Your task to perform on an android device: change your default location settings in chrome Image 0: 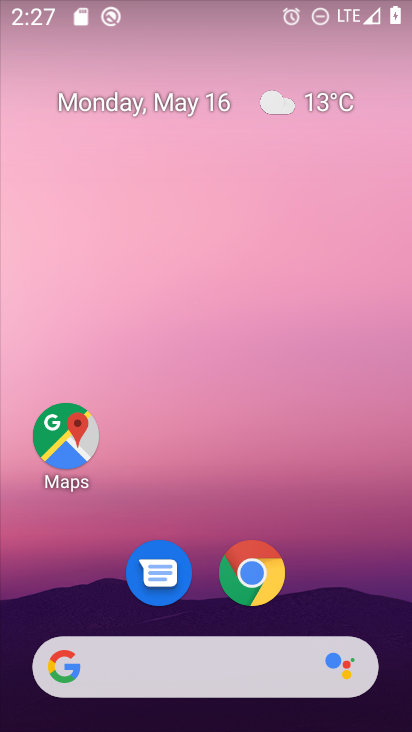
Step 0: click (286, 599)
Your task to perform on an android device: change your default location settings in chrome Image 1: 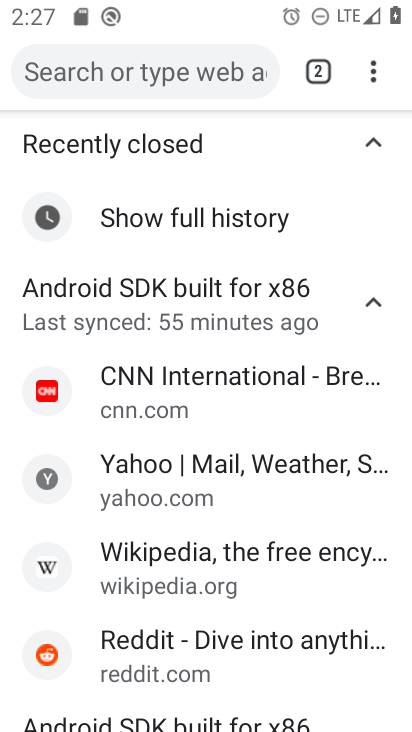
Step 1: drag from (378, 61) to (133, 598)
Your task to perform on an android device: change your default location settings in chrome Image 2: 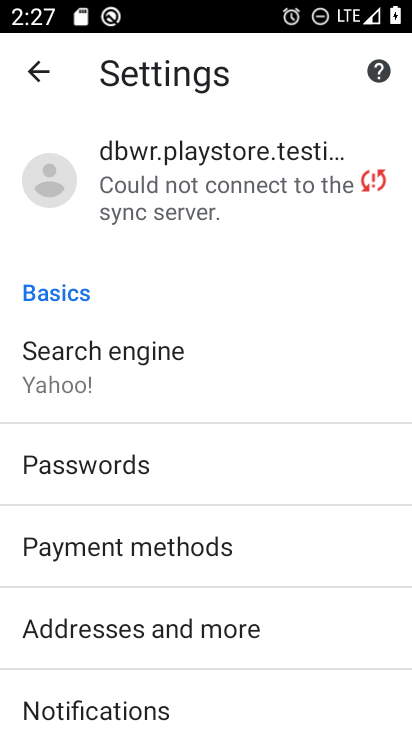
Step 2: drag from (228, 632) to (186, 176)
Your task to perform on an android device: change your default location settings in chrome Image 3: 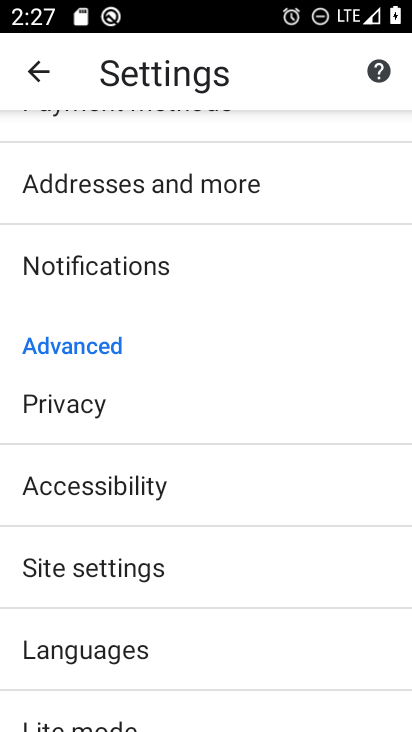
Step 3: click (92, 576)
Your task to perform on an android device: change your default location settings in chrome Image 4: 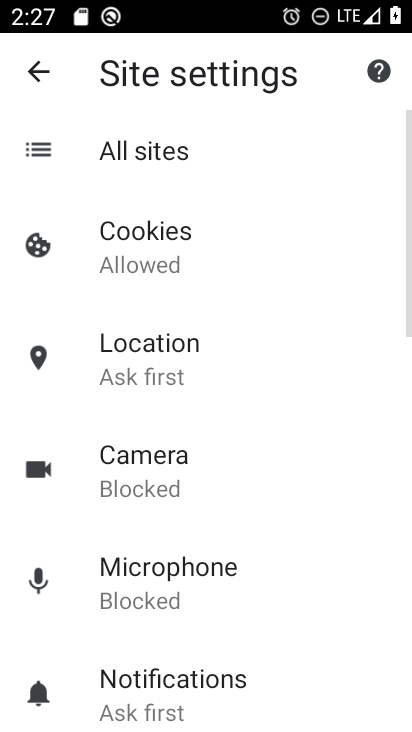
Step 4: drag from (224, 563) to (146, 102)
Your task to perform on an android device: change your default location settings in chrome Image 5: 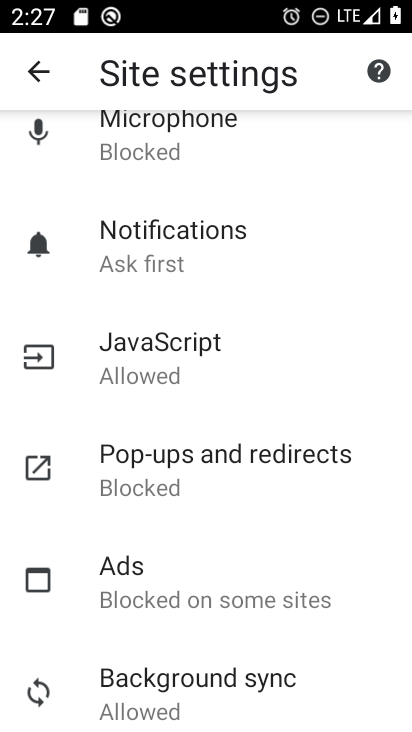
Step 5: drag from (167, 224) to (171, 611)
Your task to perform on an android device: change your default location settings in chrome Image 6: 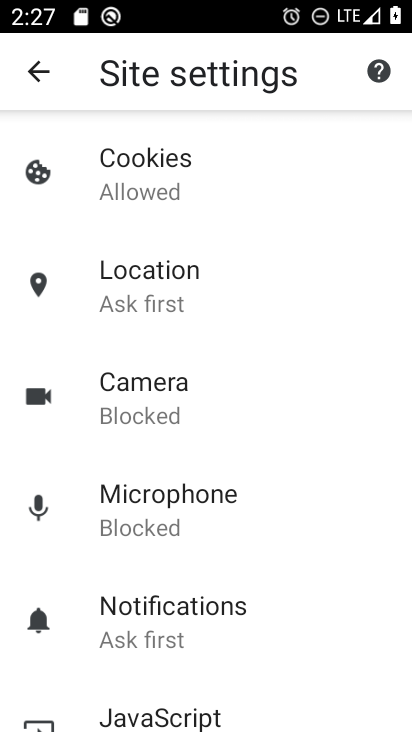
Step 6: click (151, 273)
Your task to perform on an android device: change your default location settings in chrome Image 7: 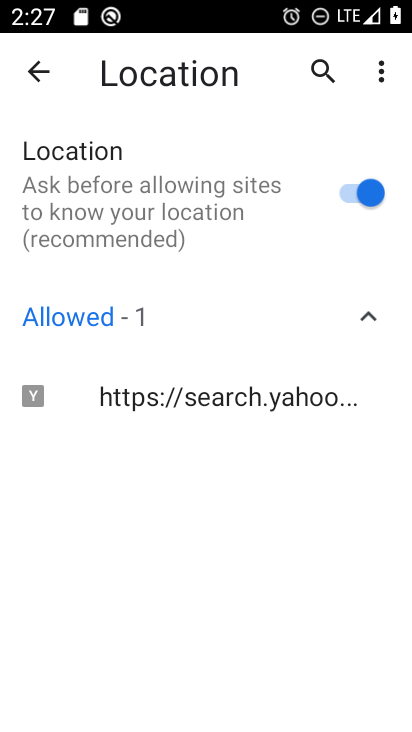
Step 7: click (360, 192)
Your task to perform on an android device: change your default location settings in chrome Image 8: 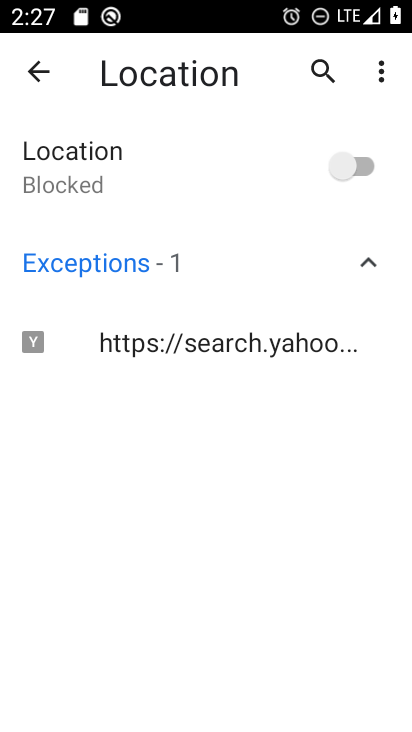
Step 8: task complete